Your task to perform on an android device: Search for the best rated headphones on AliExpress. Image 0: 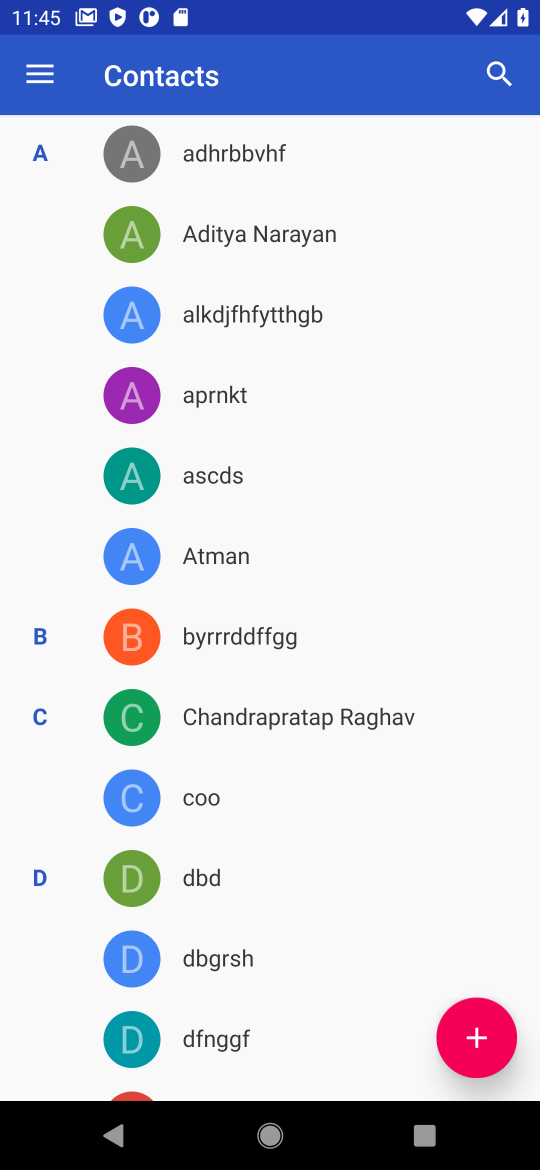
Step 0: press home button
Your task to perform on an android device: Search for the best rated headphones on AliExpress. Image 1: 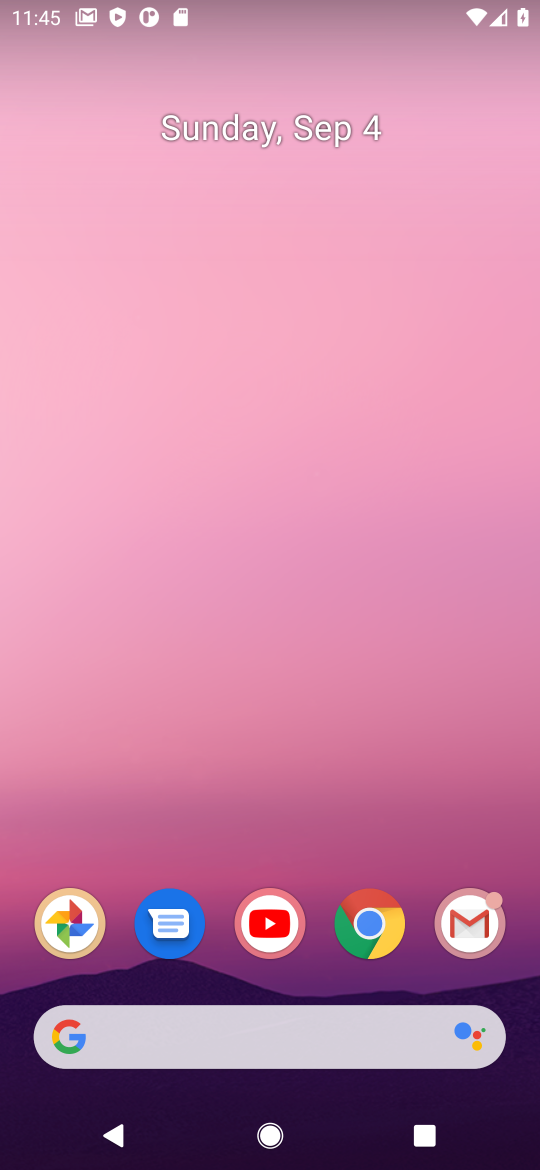
Step 1: click (391, 934)
Your task to perform on an android device: Search for the best rated headphones on AliExpress. Image 2: 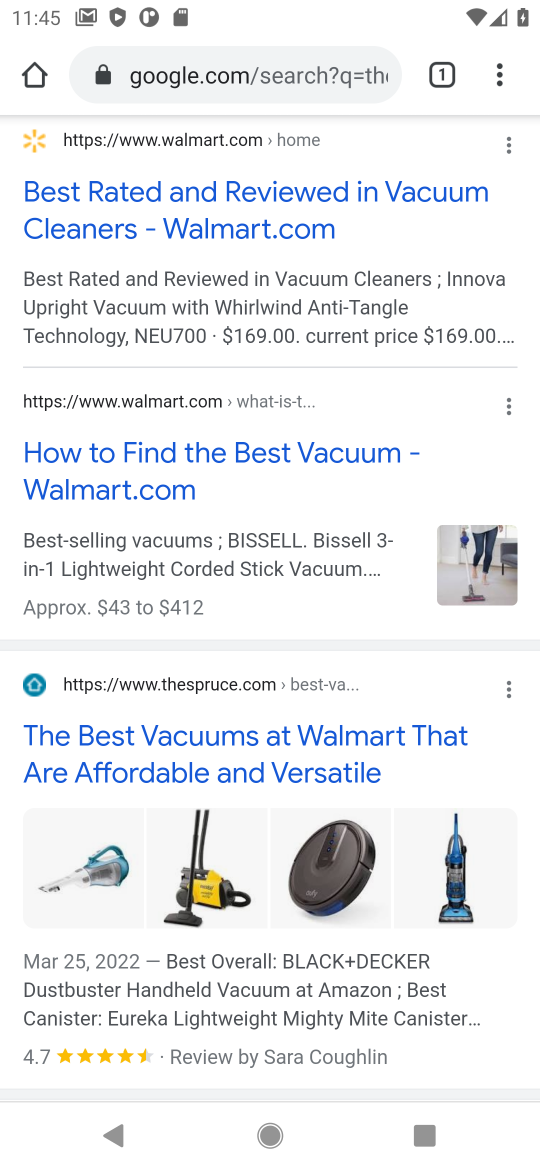
Step 2: click (238, 63)
Your task to perform on an android device: Search for the best rated headphones on AliExpress. Image 3: 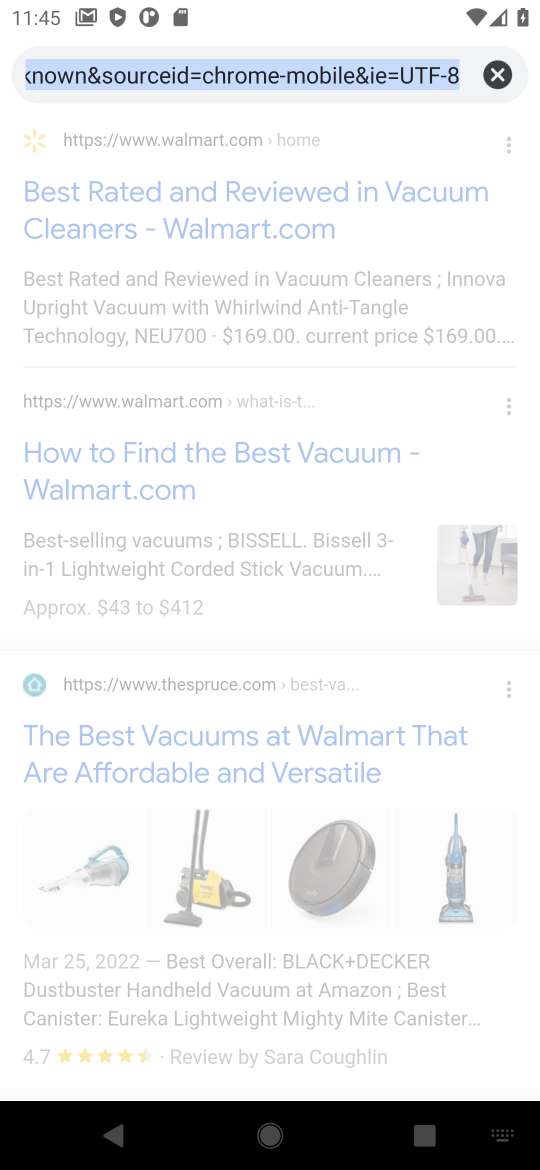
Step 3: click (491, 73)
Your task to perform on an android device: Search for the best rated headphones on AliExpress. Image 4: 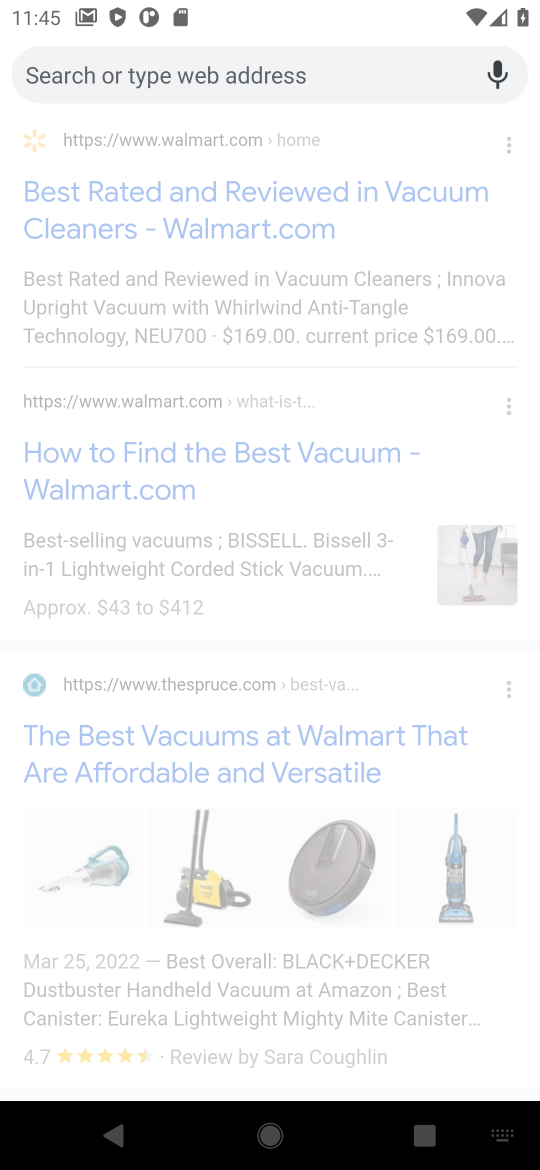
Step 4: type "the best rated headphones on AliExpress."
Your task to perform on an android device: Search for the best rated headphones on AliExpress. Image 5: 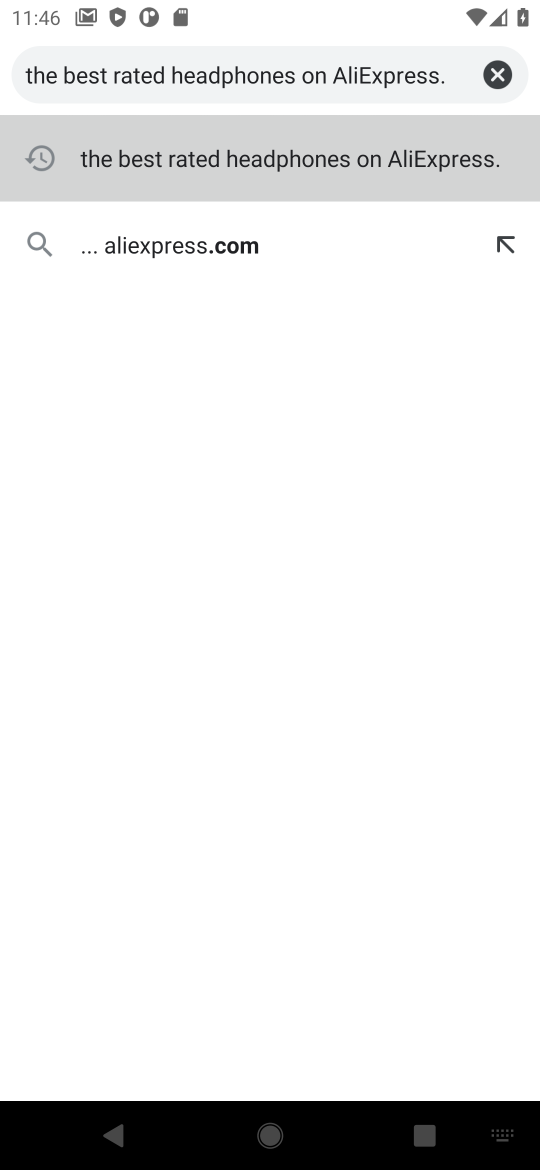
Step 5: click (430, 176)
Your task to perform on an android device: Search for the best rated headphones on AliExpress. Image 6: 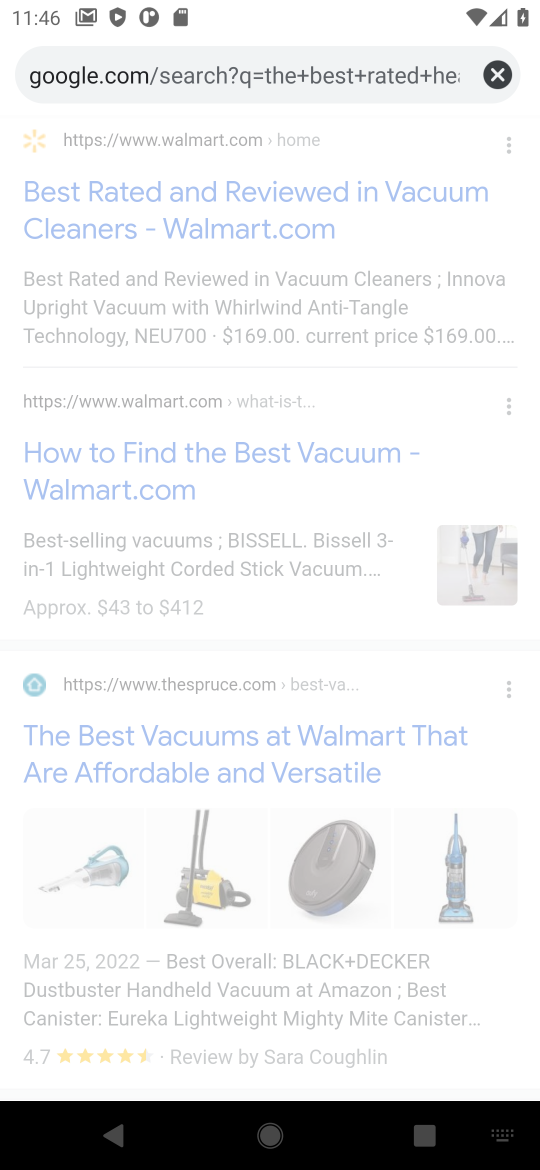
Step 6: click (430, 176)
Your task to perform on an android device: Search for the best rated headphones on AliExpress. Image 7: 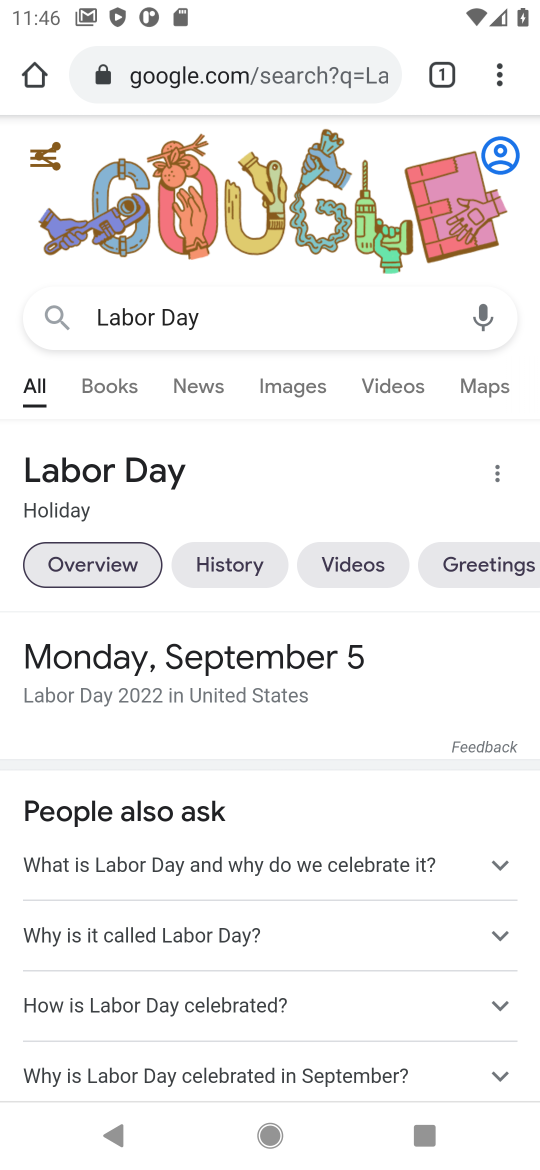
Step 7: task complete